Your task to perform on an android device: see sites visited before in the chrome app Image 0: 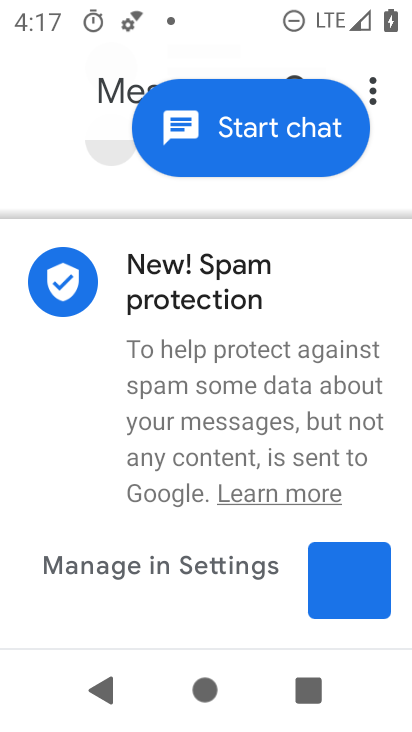
Step 0: press back button
Your task to perform on an android device: see sites visited before in the chrome app Image 1: 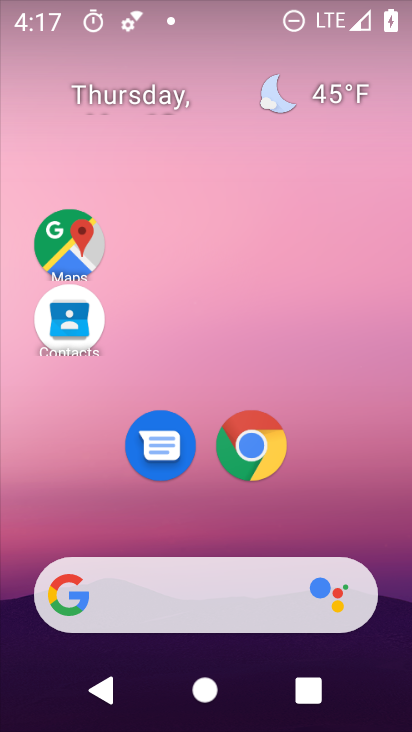
Step 1: click (252, 443)
Your task to perform on an android device: see sites visited before in the chrome app Image 2: 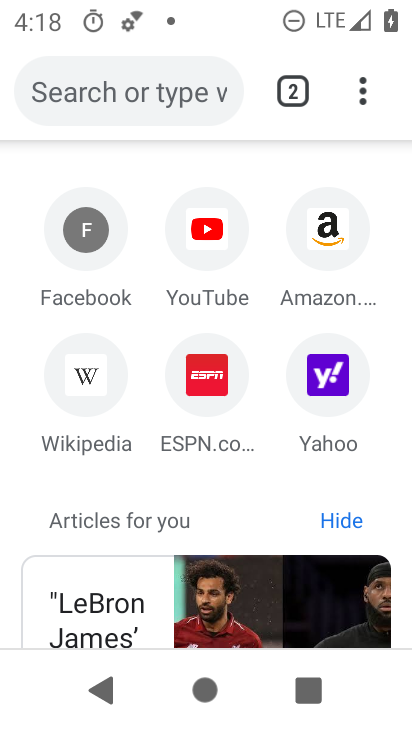
Step 2: click (361, 89)
Your task to perform on an android device: see sites visited before in the chrome app Image 3: 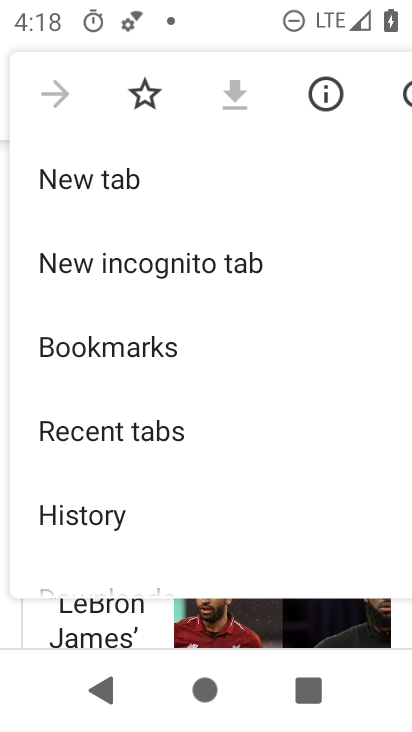
Step 3: click (85, 515)
Your task to perform on an android device: see sites visited before in the chrome app Image 4: 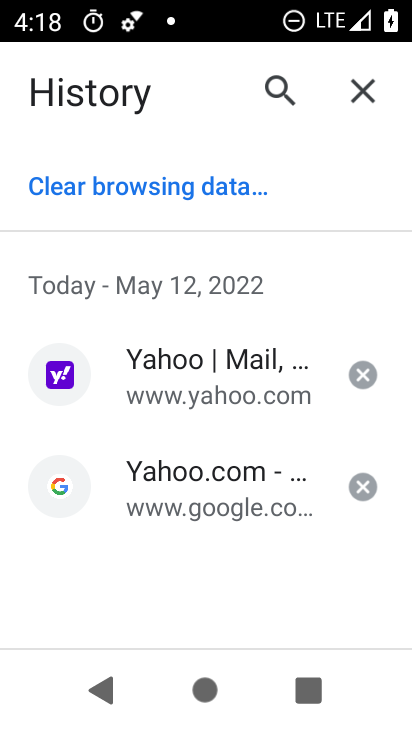
Step 4: task complete